Your task to perform on an android device: Go to internet settings Image 0: 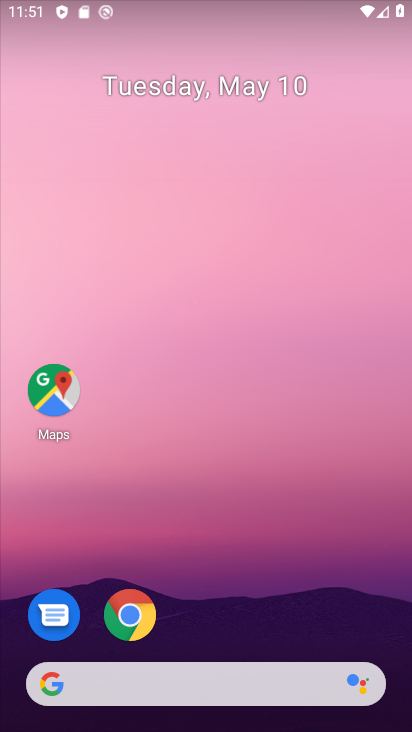
Step 0: drag from (221, 640) to (243, 37)
Your task to perform on an android device: Go to internet settings Image 1: 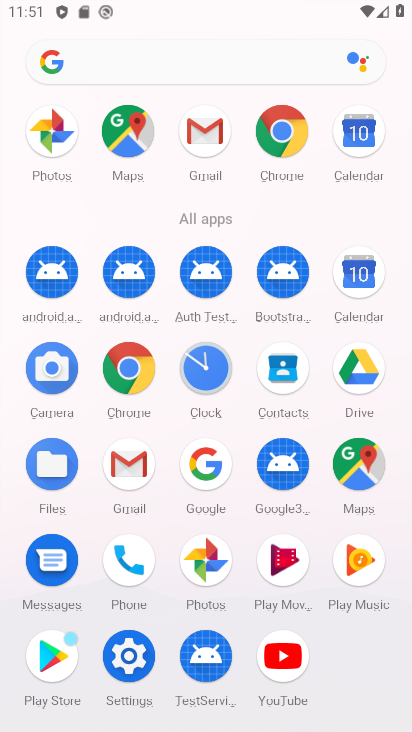
Step 1: click (134, 659)
Your task to perform on an android device: Go to internet settings Image 2: 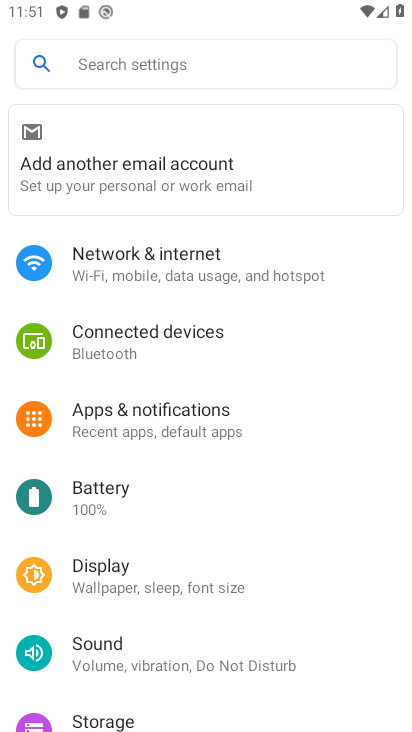
Step 2: click (170, 281)
Your task to perform on an android device: Go to internet settings Image 3: 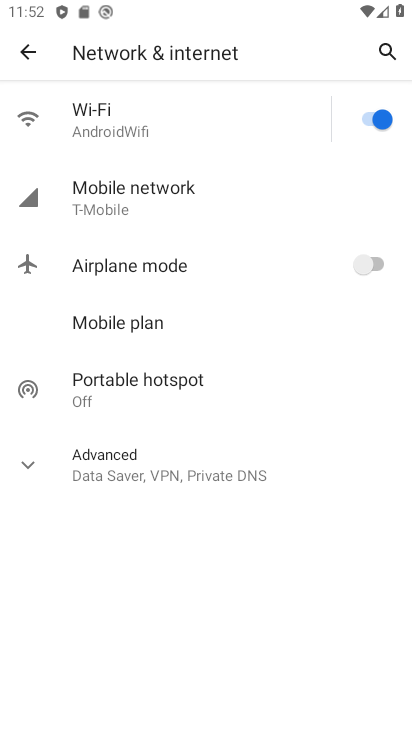
Step 3: click (285, 191)
Your task to perform on an android device: Go to internet settings Image 4: 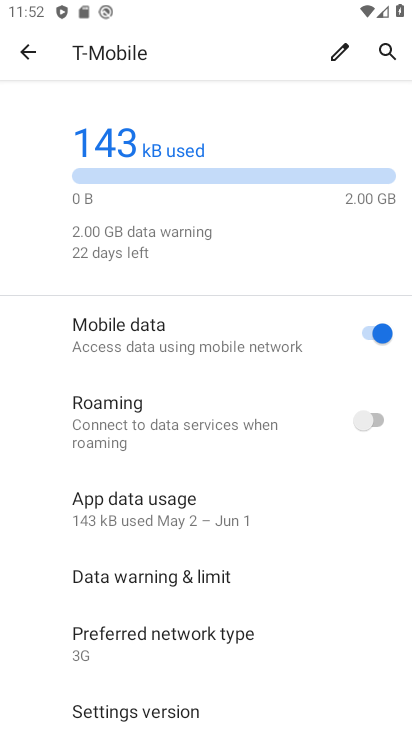
Step 4: task complete